Your task to perform on an android device: Open ESPN.com Image 0: 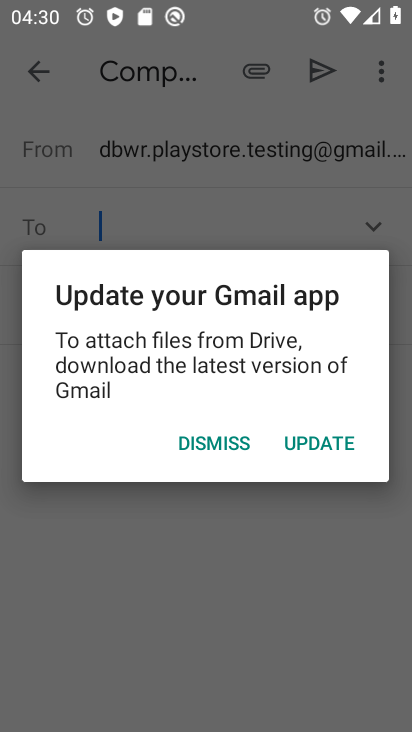
Step 0: press home button
Your task to perform on an android device: Open ESPN.com Image 1: 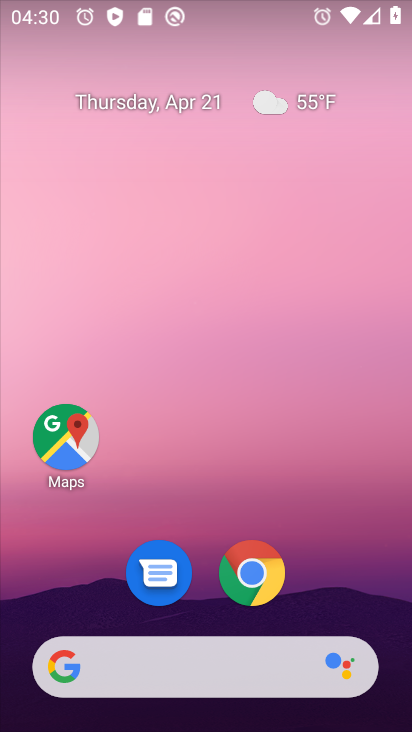
Step 1: click (251, 573)
Your task to perform on an android device: Open ESPN.com Image 2: 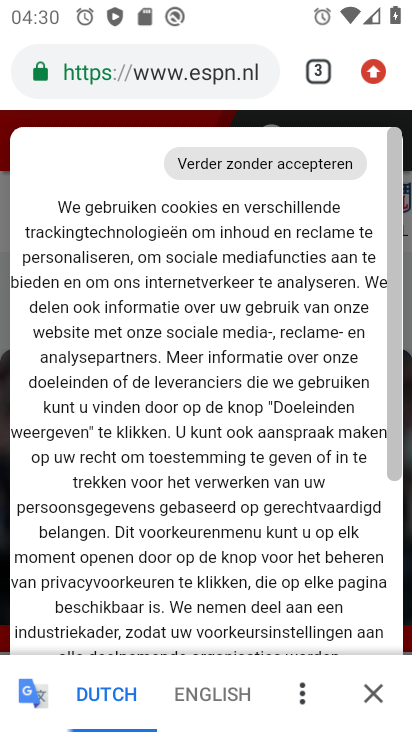
Step 2: task complete